Your task to perform on an android device: Show me recent news Image 0: 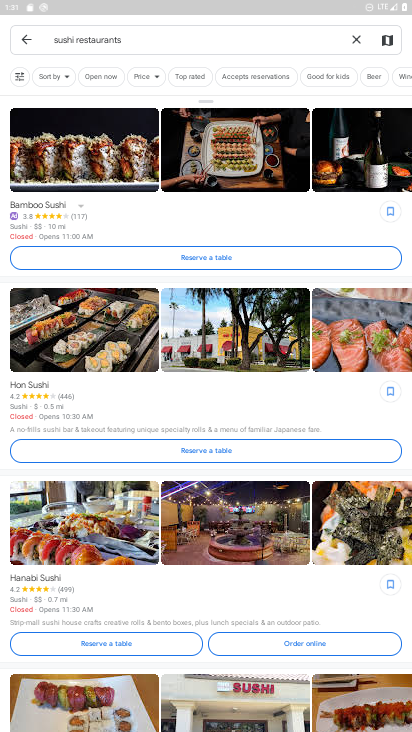
Step 0: press home button
Your task to perform on an android device: Show me recent news Image 1: 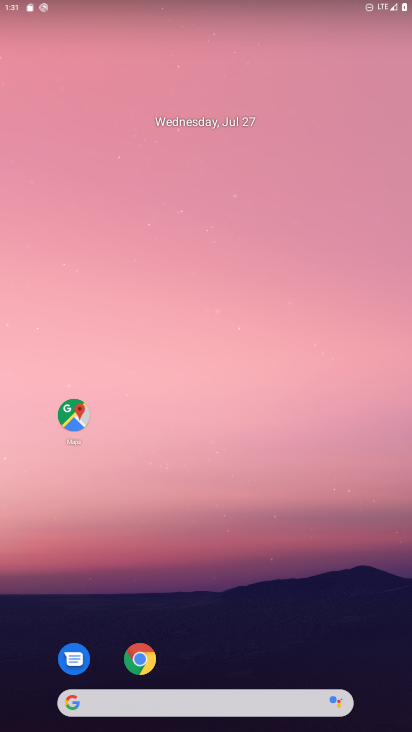
Step 1: click (158, 699)
Your task to perform on an android device: Show me recent news Image 2: 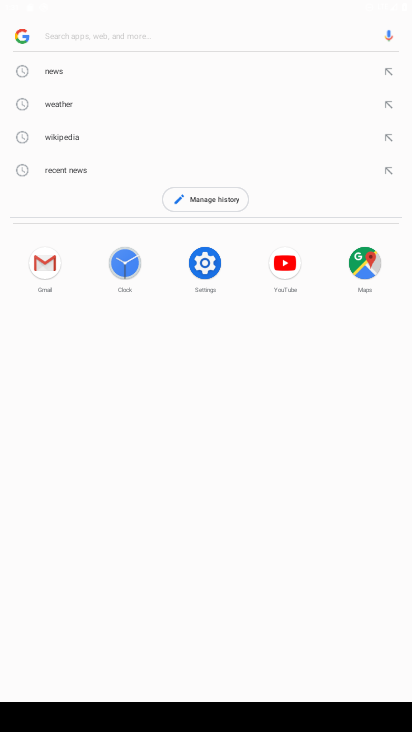
Step 2: type "show me recent news"
Your task to perform on an android device: Show me recent news Image 3: 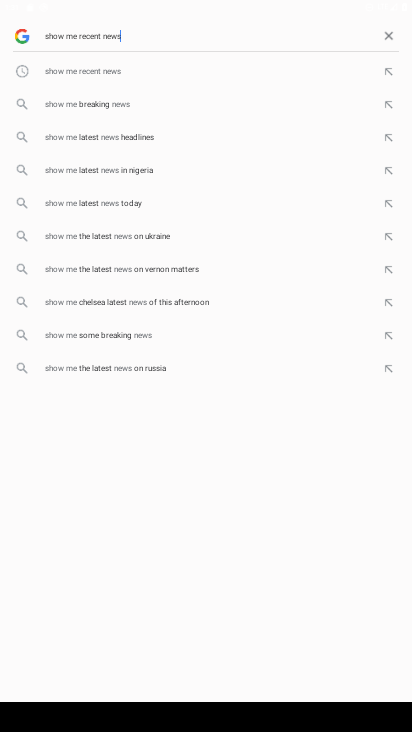
Step 3: click (162, 71)
Your task to perform on an android device: Show me recent news Image 4: 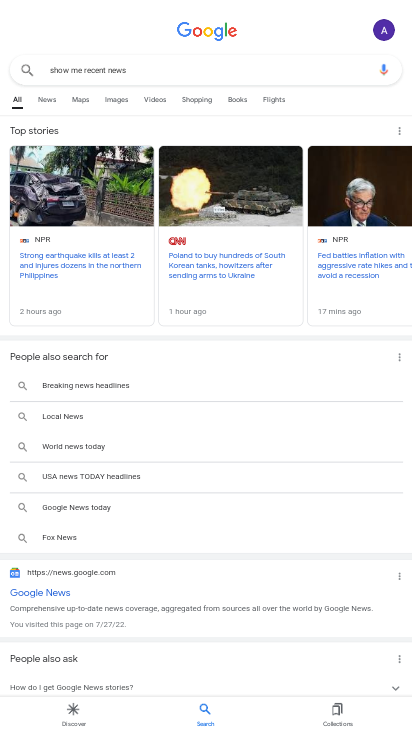
Step 4: drag from (181, 578) to (193, 104)
Your task to perform on an android device: Show me recent news Image 5: 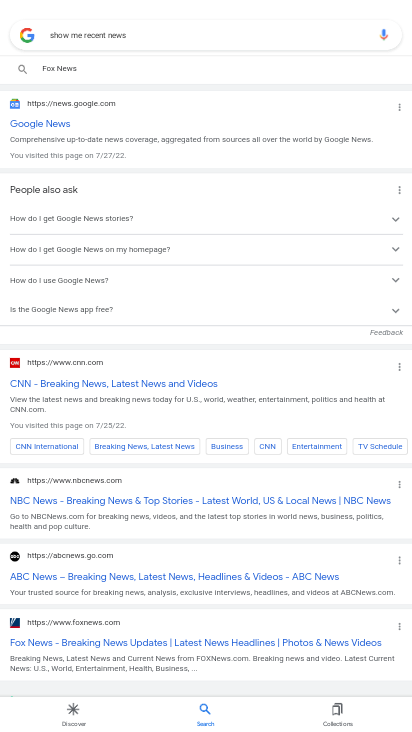
Step 5: click (49, 112)
Your task to perform on an android device: Show me recent news Image 6: 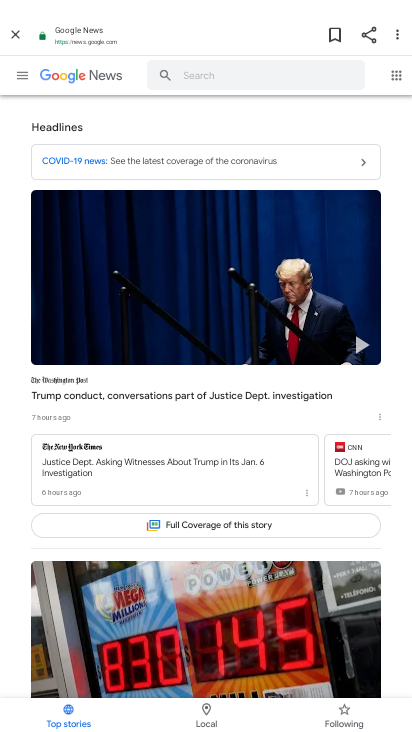
Step 6: task complete